Your task to perform on an android device: check android version Image 0: 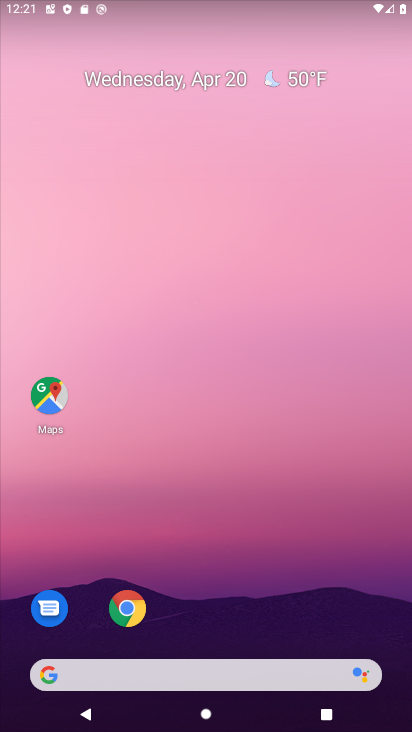
Step 0: drag from (223, 643) to (225, 25)
Your task to perform on an android device: check android version Image 1: 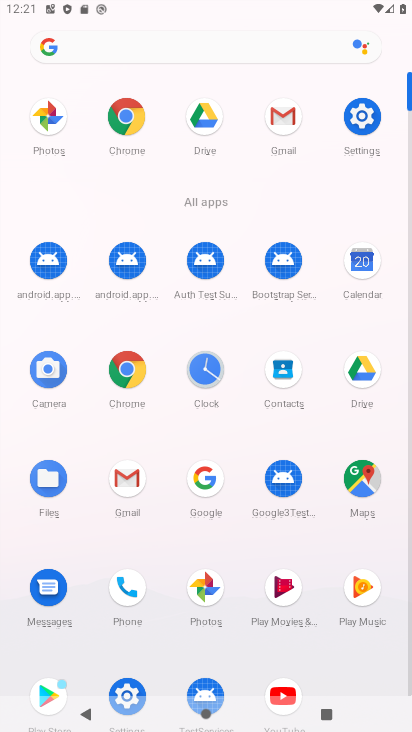
Step 1: click (361, 106)
Your task to perform on an android device: check android version Image 2: 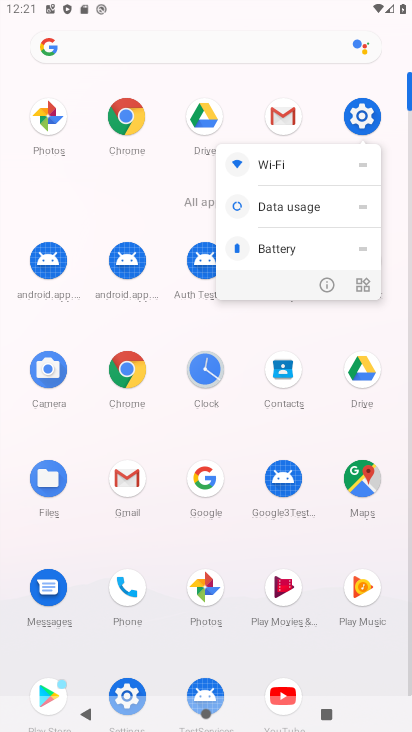
Step 2: click (355, 113)
Your task to perform on an android device: check android version Image 3: 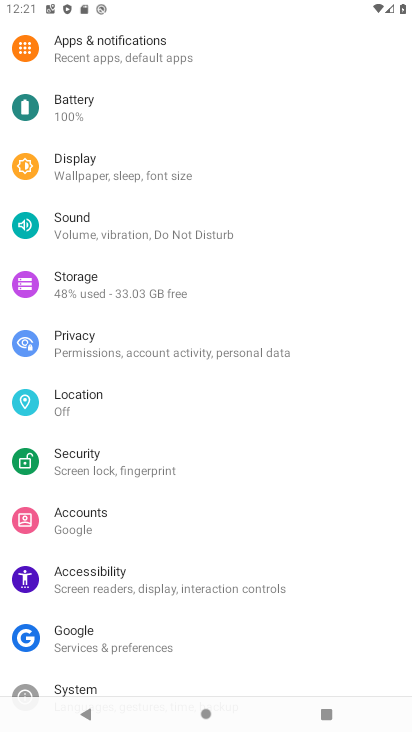
Step 3: drag from (224, 618) to (217, 131)
Your task to perform on an android device: check android version Image 4: 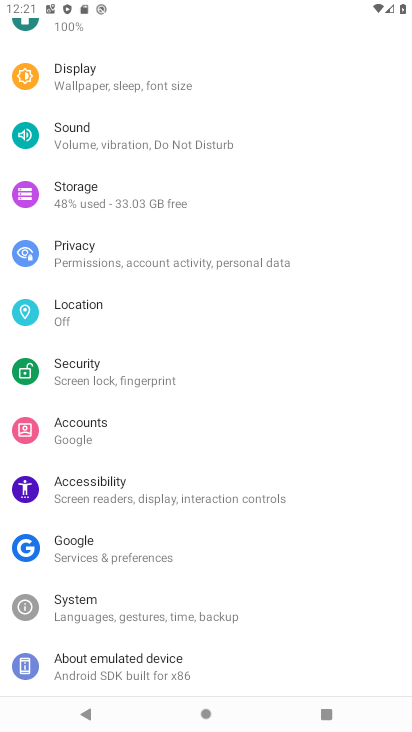
Step 4: click (123, 668)
Your task to perform on an android device: check android version Image 5: 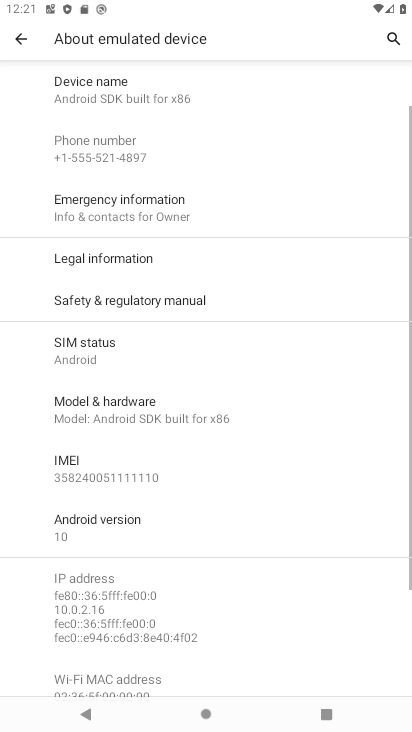
Step 5: click (118, 529)
Your task to perform on an android device: check android version Image 6: 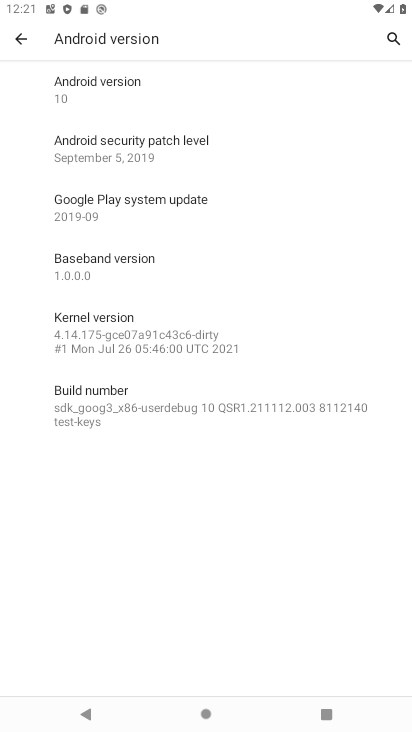
Step 6: task complete